Your task to perform on an android device: check storage Image 0: 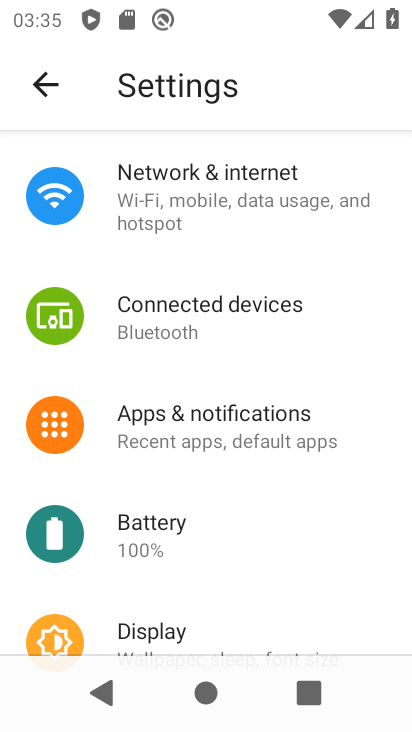
Step 0: press home button
Your task to perform on an android device: check storage Image 1: 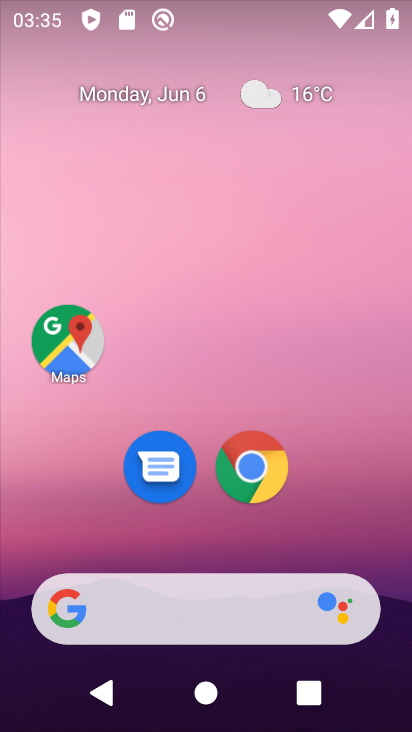
Step 1: drag from (213, 553) to (223, 66)
Your task to perform on an android device: check storage Image 2: 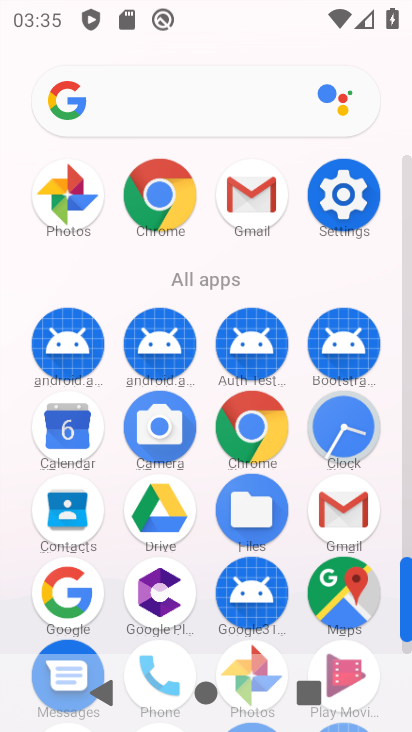
Step 2: click (344, 179)
Your task to perform on an android device: check storage Image 3: 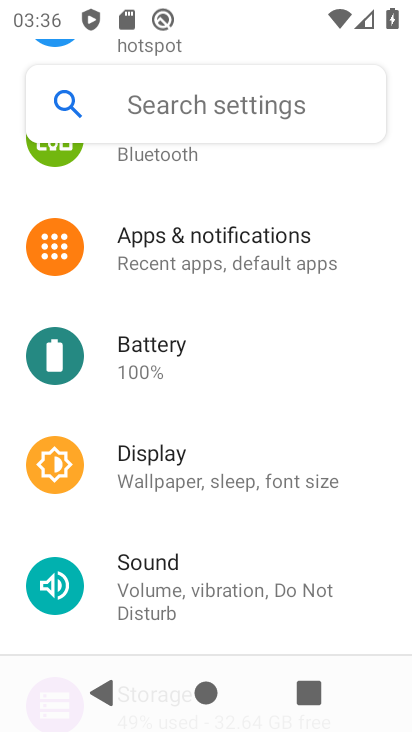
Step 3: drag from (208, 581) to (243, 90)
Your task to perform on an android device: check storage Image 4: 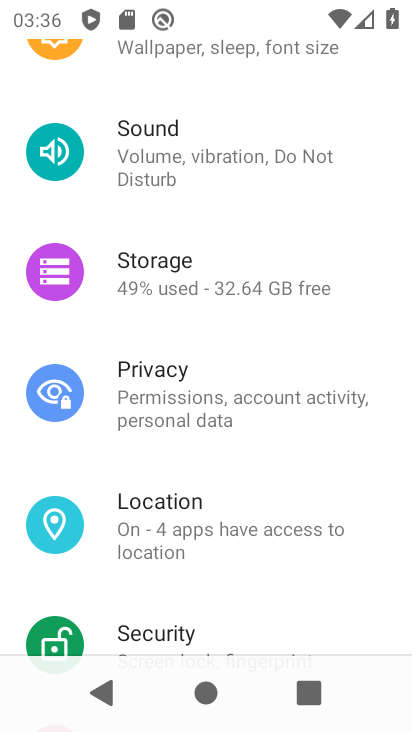
Step 4: click (184, 273)
Your task to perform on an android device: check storage Image 5: 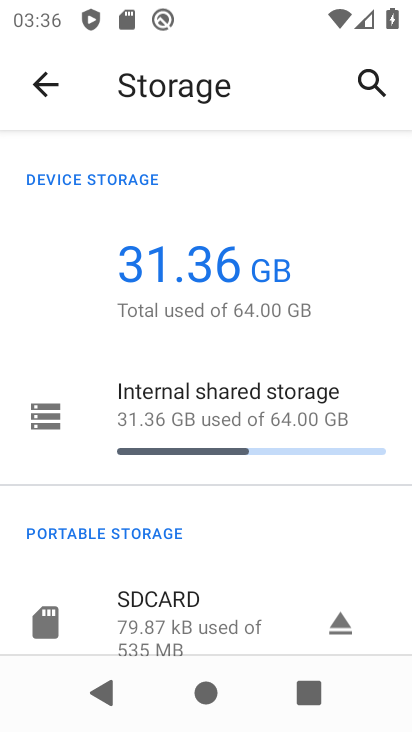
Step 5: task complete